Your task to perform on an android device: Set an alarm for 3pm Image 0: 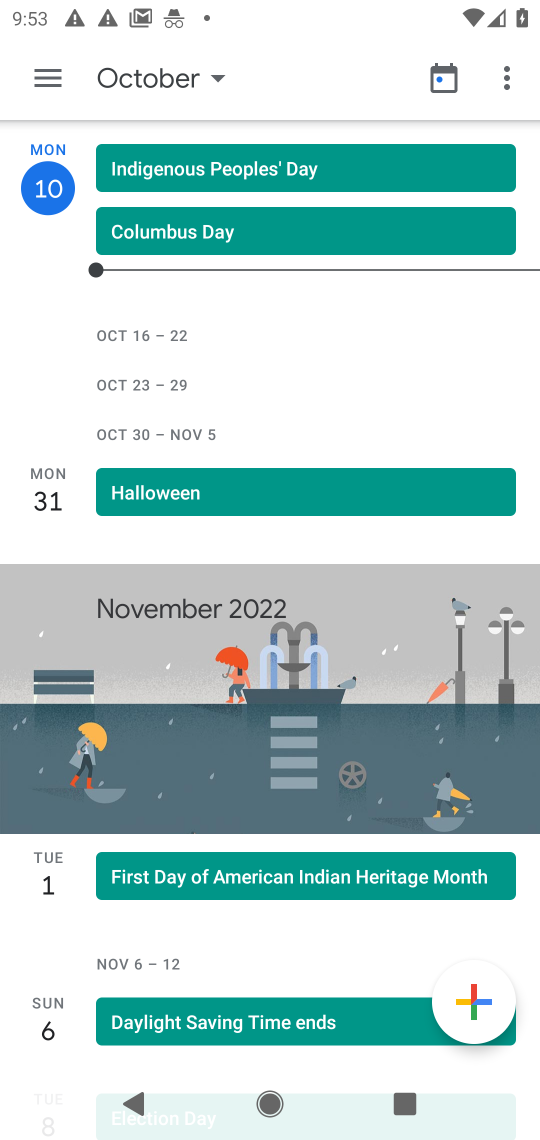
Step 0: press home button
Your task to perform on an android device: Set an alarm for 3pm Image 1: 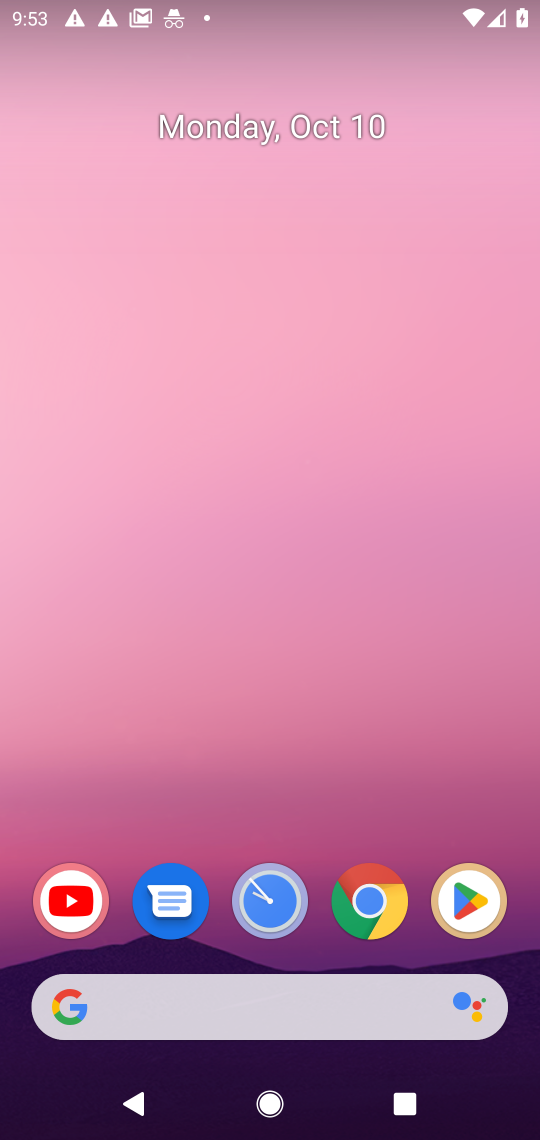
Step 1: drag from (478, 808) to (447, 114)
Your task to perform on an android device: Set an alarm for 3pm Image 2: 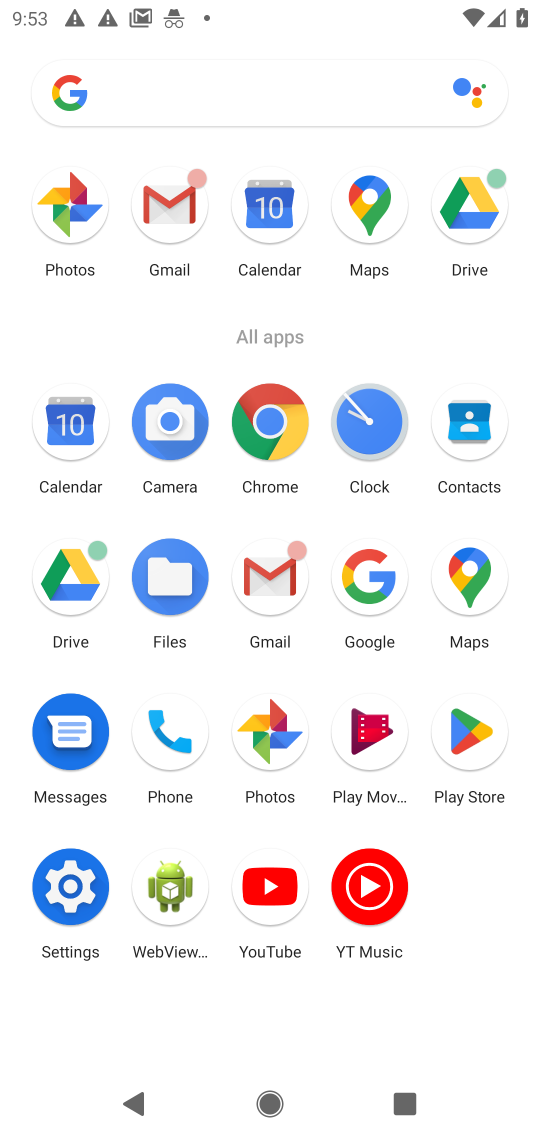
Step 2: click (365, 428)
Your task to perform on an android device: Set an alarm for 3pm Image 3: 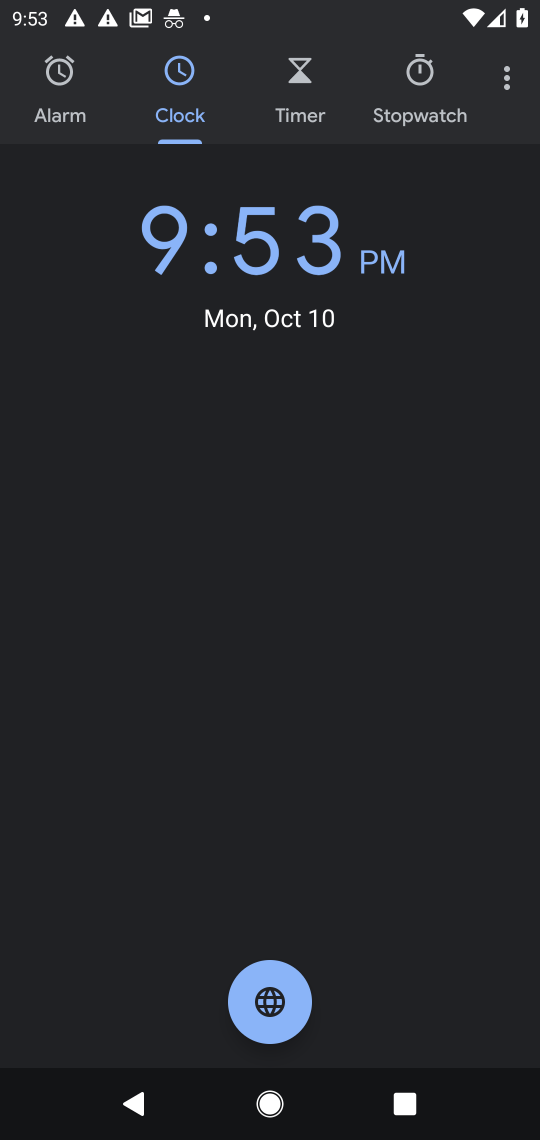
Step 3: click (54, 82)
Your task to perform on an android device: Set an alarm for 3pm Image 4: 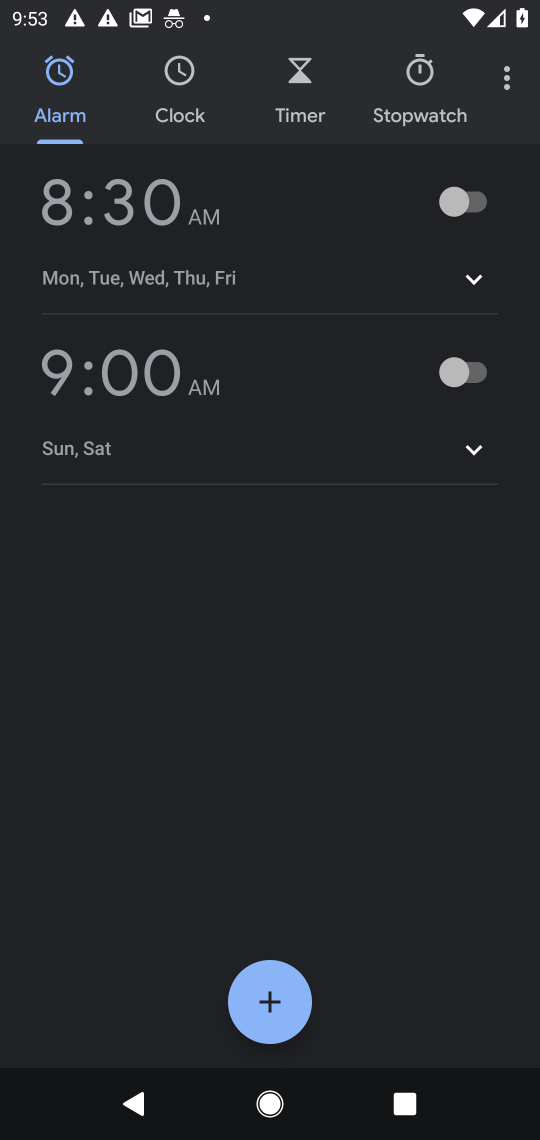
Step 4: click (262, 1005)
Your task to perform on an android device: Set an alarm for 3pm Image 5: 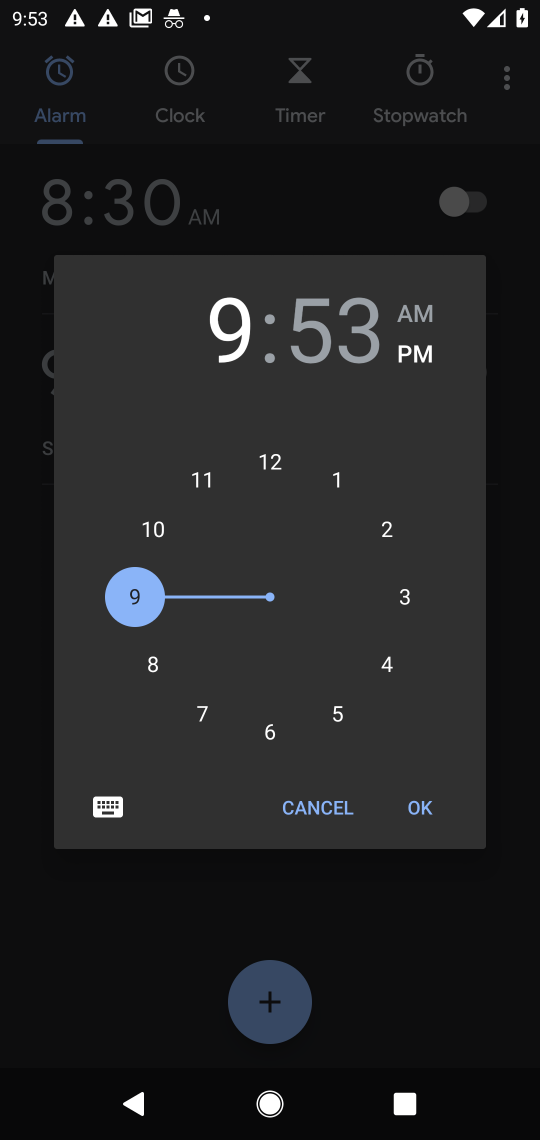
Step 5: click (415, 597)
Your task to perform on an android device: Set an alarm for 3pm Image 6: 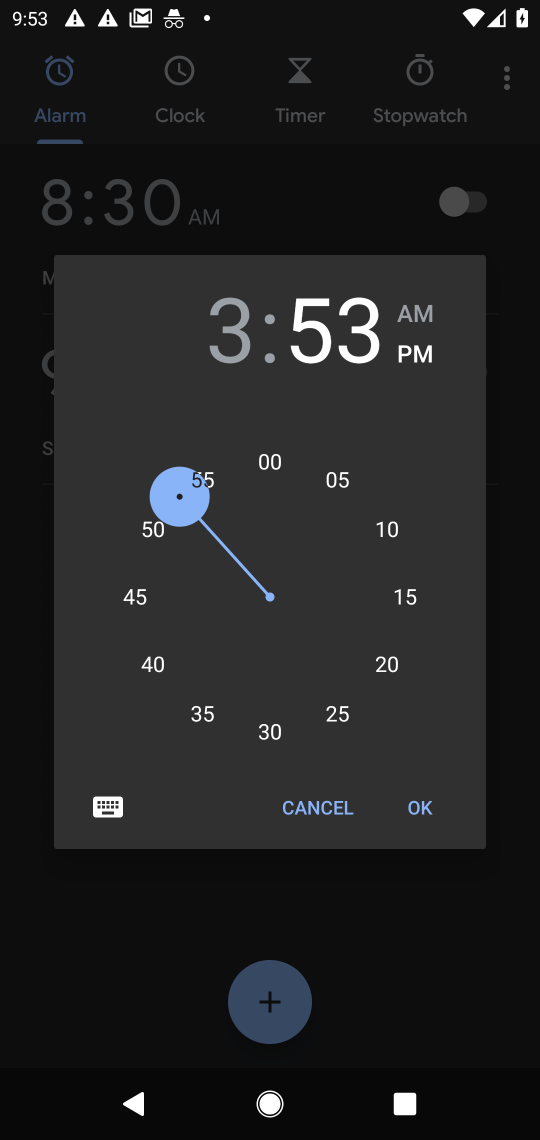
Step 6: click (282, 460)
Your task to perform on an android device: Set an alarm for 3pm Image 7: 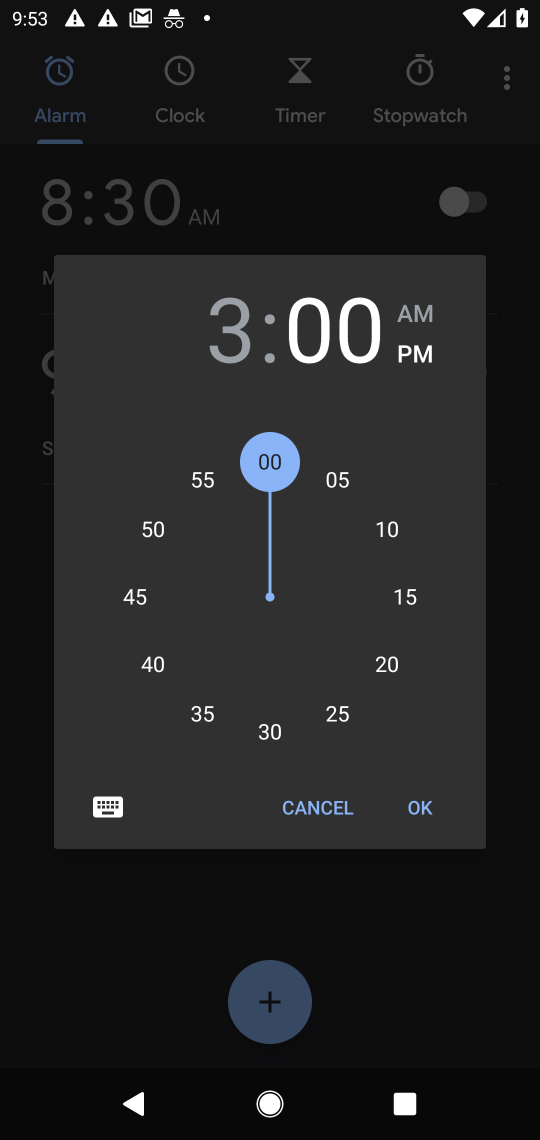
Step 7: click (411, 815)
Your task to perform on an android device: Set an alarm for 3pm Image 8: 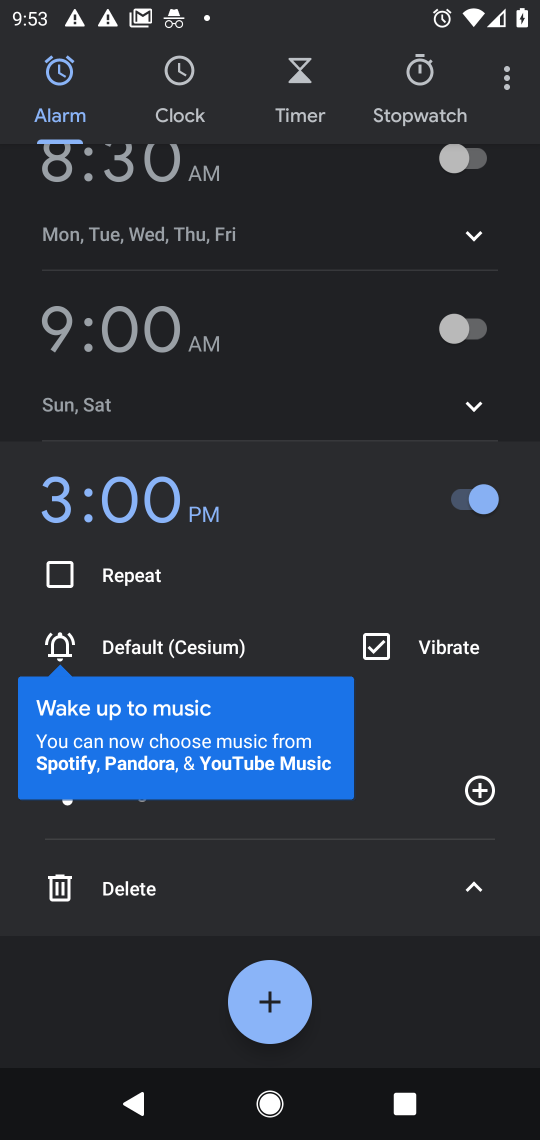
Step 8: task complete